Your task to perform on an android device: delete browsing data in the chrome app Image 0: 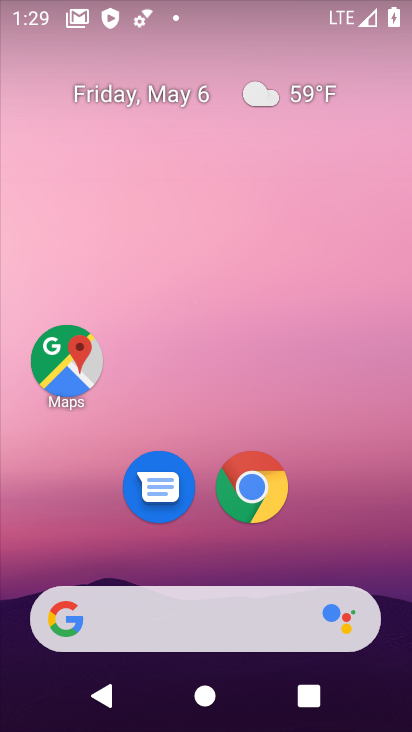
Step 0: click (269, 499)
Your task to perform on an android device: delete browsing data in the chrome app Image 1: 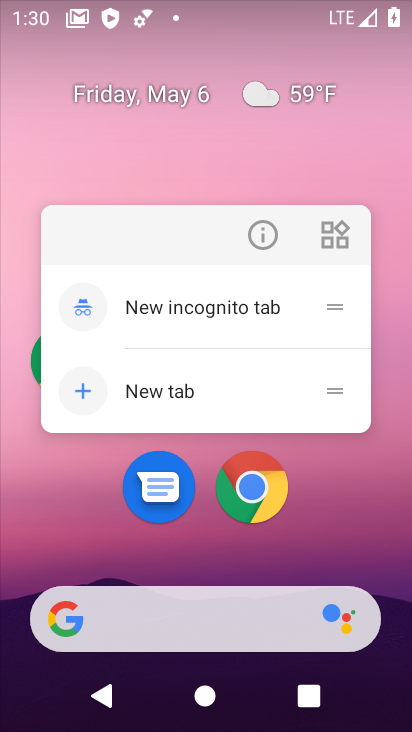
Step 1: click (268, 503)
Your task to perform on an android device: delete browsing data in the chrome app Image 2: 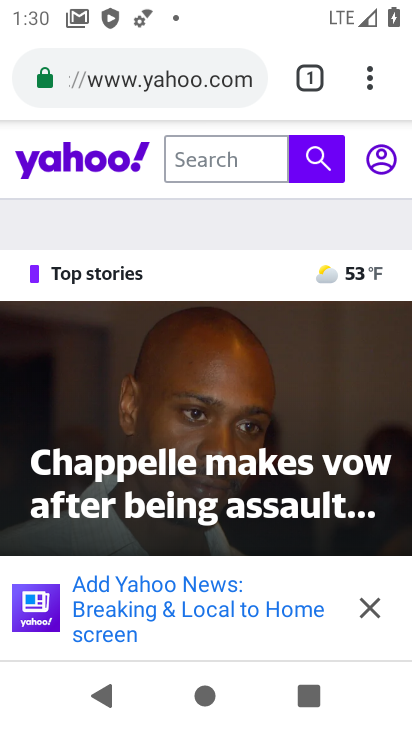
Step 2: click (362, 78)
Your task to perform on an android device: delete browsing data in the chrome app Image 3: 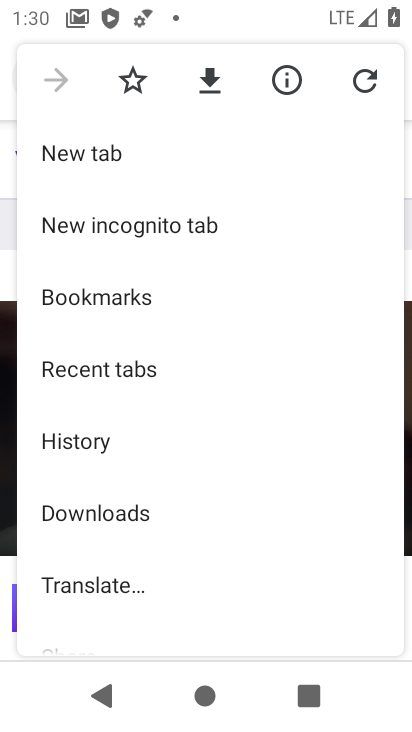
Step 3: drag from (213, 505) to (309, 5)
Your task to perform on an android device: delete browsing data in the chrome app Image 4: 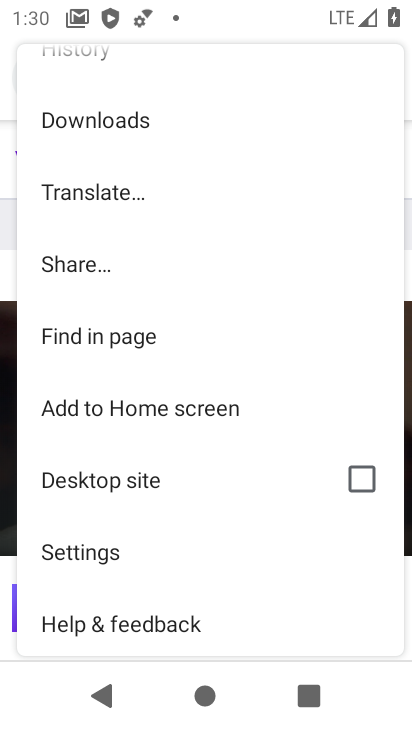
Step 4: click (125, 549)
Your task to perform on an android device: delete browsing data in the chrome app Image 5: 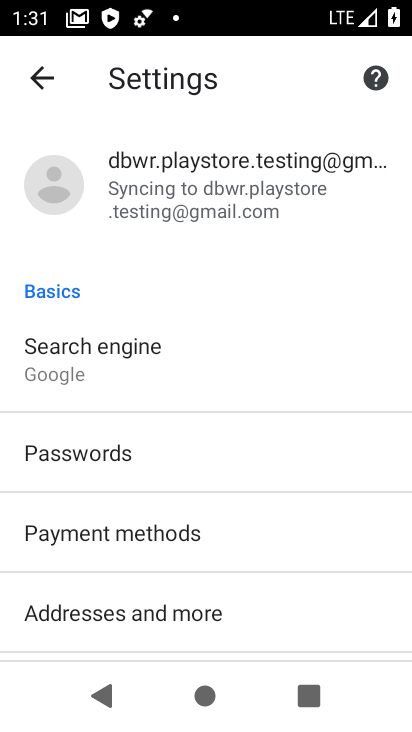
Step 5: drag from (207, 538) to (257, 296)
Your task to perform on an android device: delete browsing data in the chrome app Image 6: 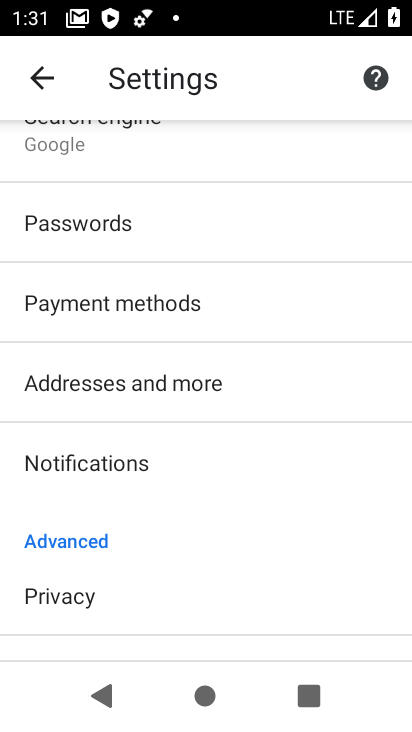
Step 6: click (40, 76)
Your task to perform on an android device: delete browsing data in the chrome app Image 7: 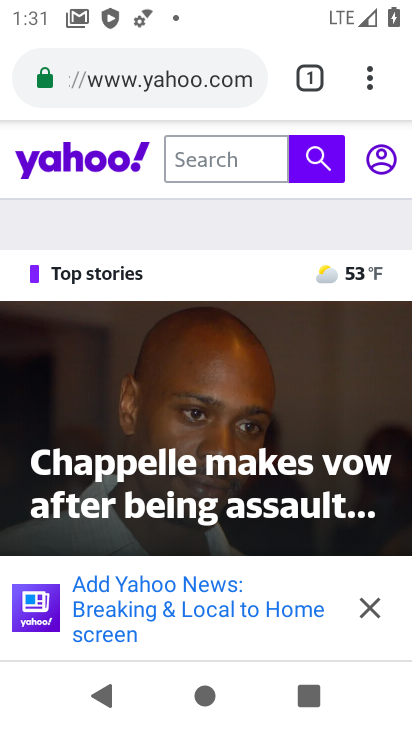
Step 7: click (365, 86)
Your task to perform on an android device: delete browsing data in the chrome app Image 8: 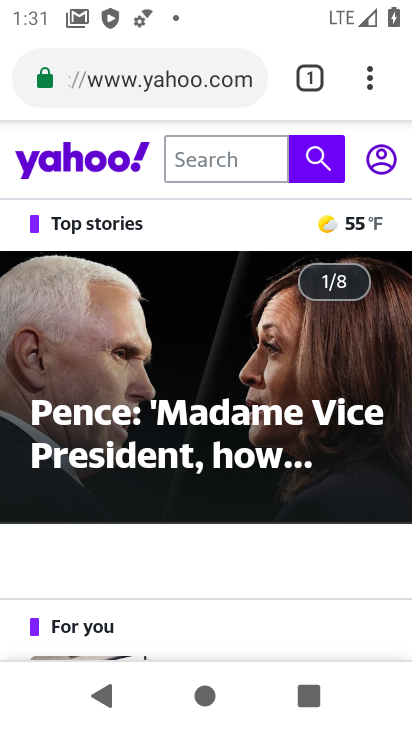
Step 8: click (370, 84)
Your task to perform on an android device: delete browsing data in the chrome app Image 9: 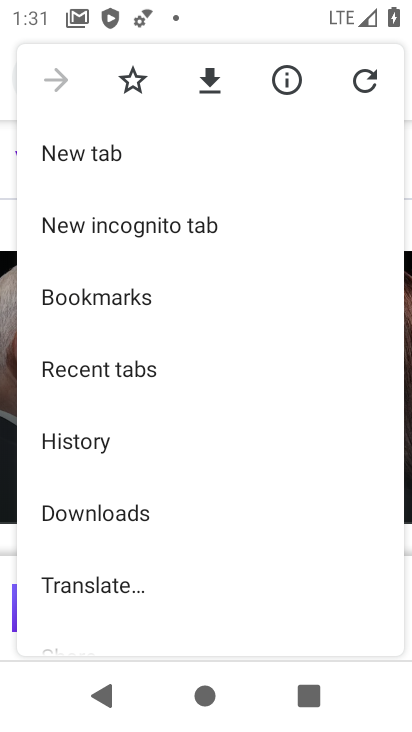
Step 9: click (106, 443)
Your task to perform on an android device: delete browsing data in the chrome app Image 10: 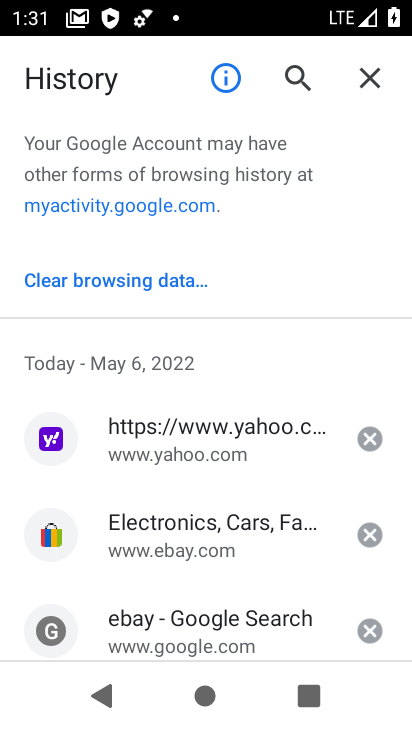
Step 10: click (162, 273)
Your task to perform on an android device: delete browsing data in the chrome app Image 11: 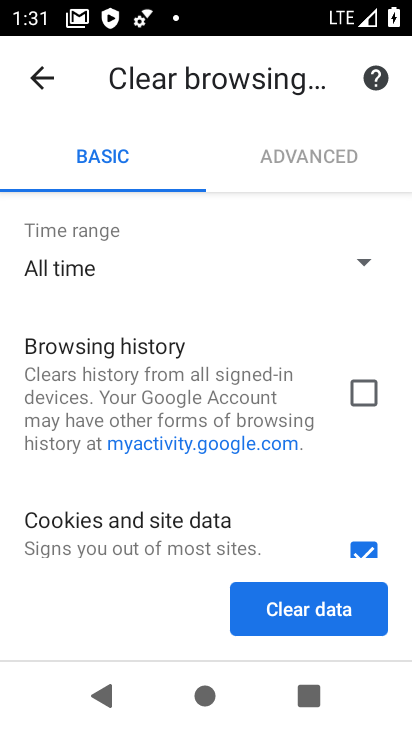
Step 11: click (310, 616)
Your task to perform on an android device: delete browsing data in the chrome app Image 12: 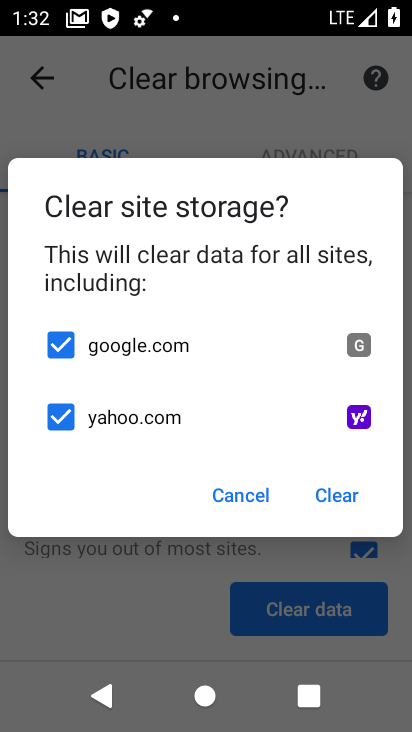
Step 12: click (341, 488)
Your task to perform on an android device: delete browsing data in the chrome app Image 13: 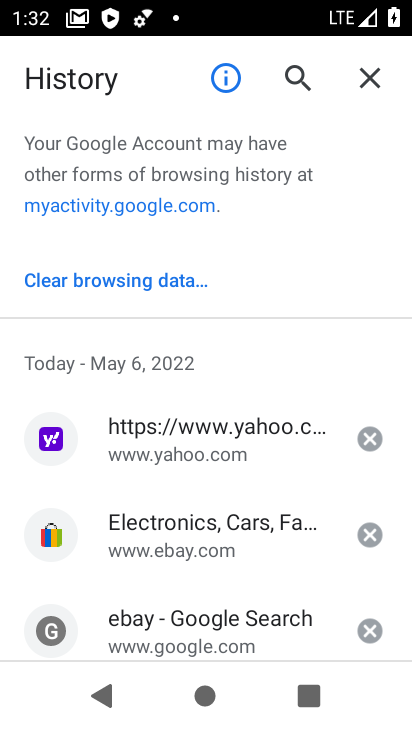
Step 13: task complete